Your task to perform on an android device: Go to Amazon Image 0: 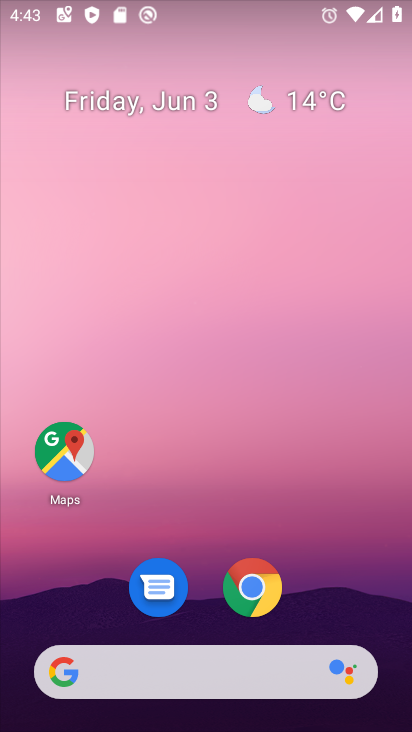
Step 0: drag from (229, 655) to (226, 255)
Your task to perform on an android device: Go to Amazon Image 1: 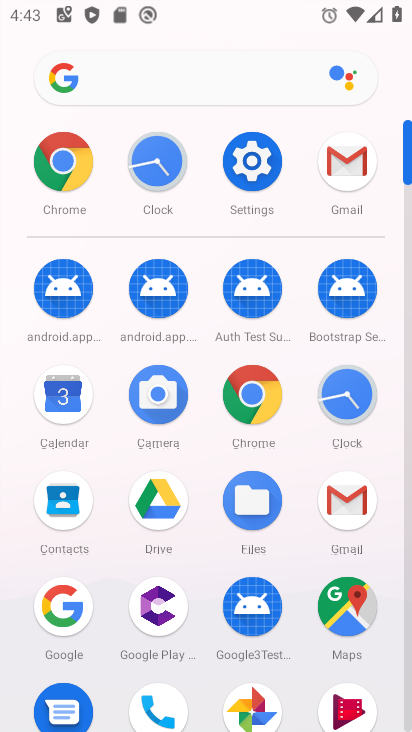
Step 1: click (249, 397)
Your task to perform on an android device: Go to Amazon Image 2: 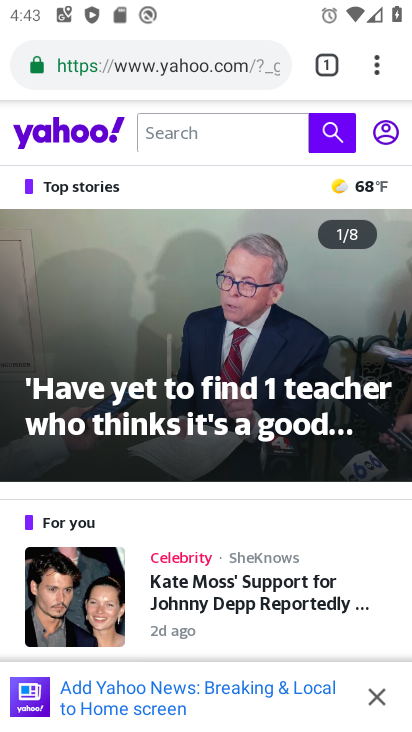
Step 2: click (324, 71)
Your task to perform on an android device: Go to Amazon Image 3: 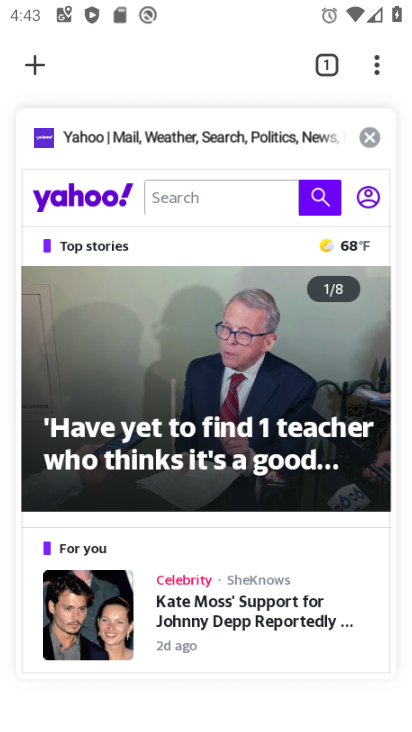
Step 3: click (368, 132)
Your task to perform on an android device: Go to Amazon Image 4: 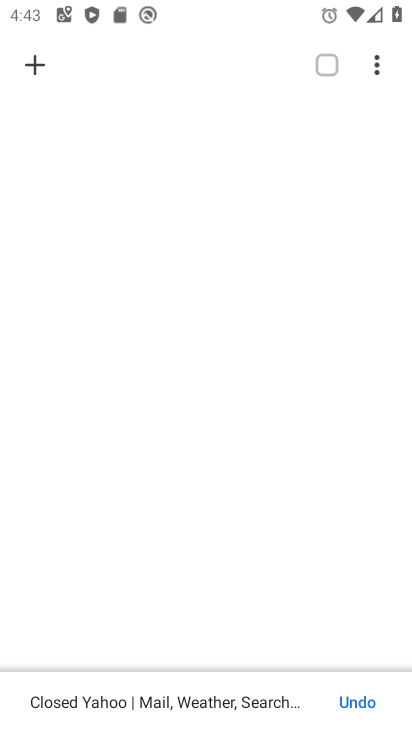
Step 4: click (41, 67)
Your task to perform on an android device: Go to Amazon Image 5: 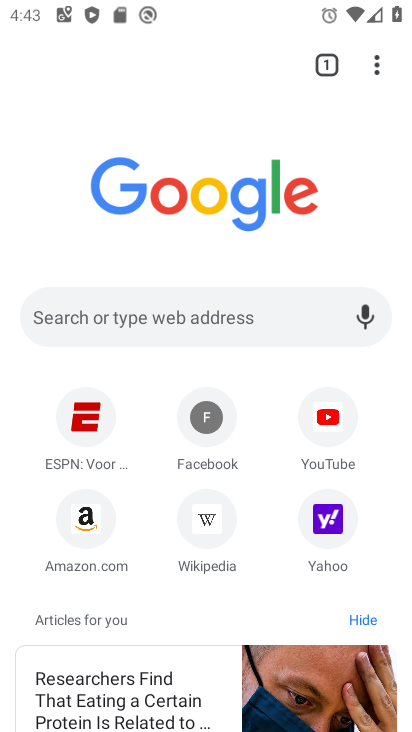
Step 5: click (85, 514)
Your task to perform on an android device: Go to Amazon Image 6: 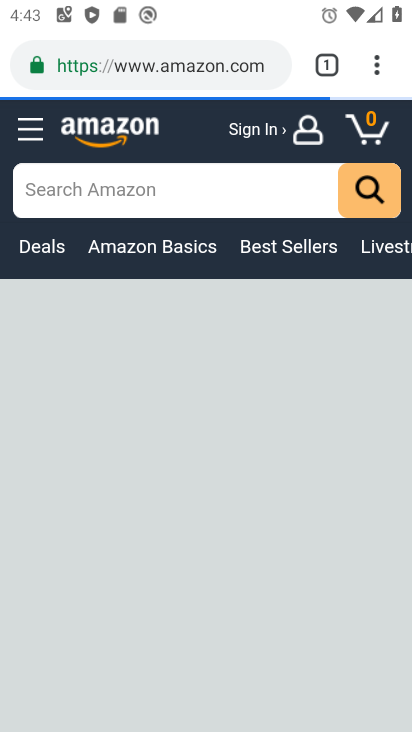
Step 6: task complete